Your task to perform on an android device: Check the news Image 0: 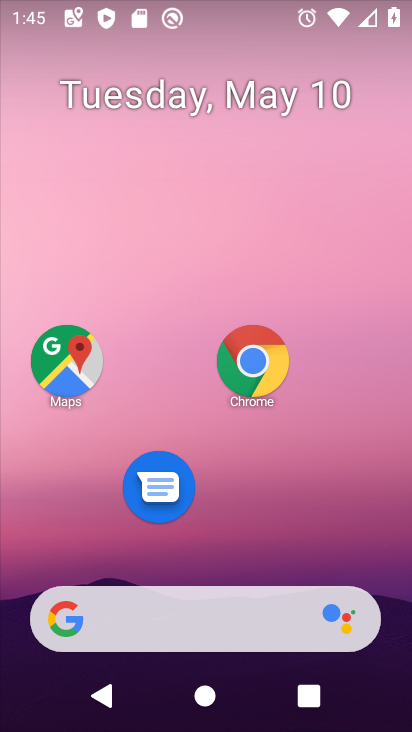
Step 0: click (251, 377)
Your task to perform on an android device: Check the news Image 1: 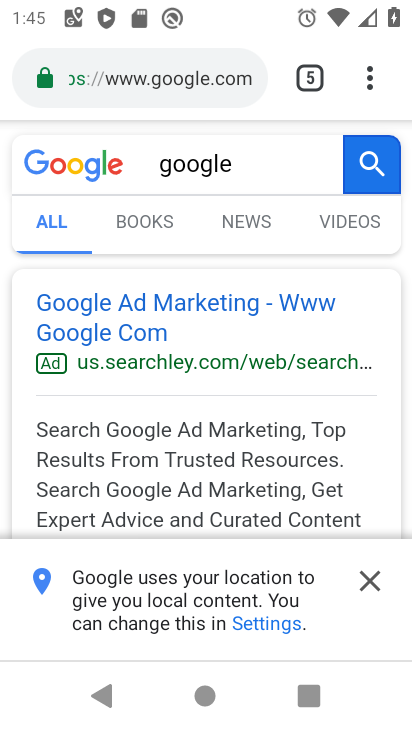
Step 1: click (313, 75)
Your task to perform on an android device: Check the news Image 2: 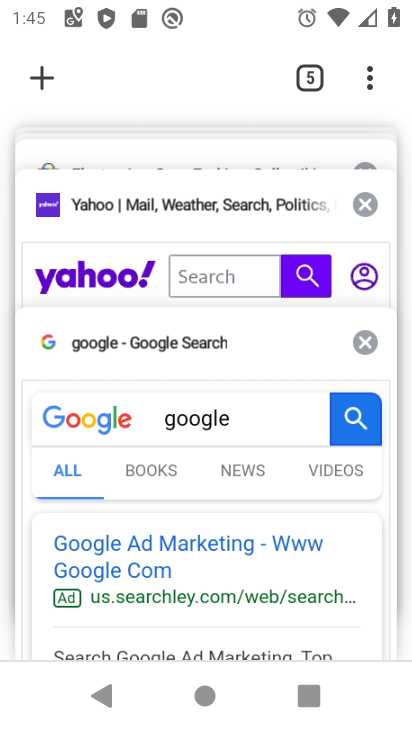
Step 2: click (59, 83)
Your task to perform on an android device: Check the news Image 3: 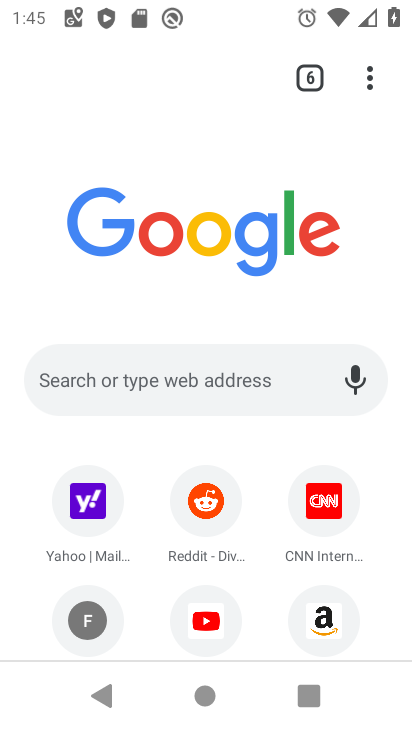
Step 3: drag from (21, 421) to (32, 142)
Your task to perform on an android device: Check the news Image 4: 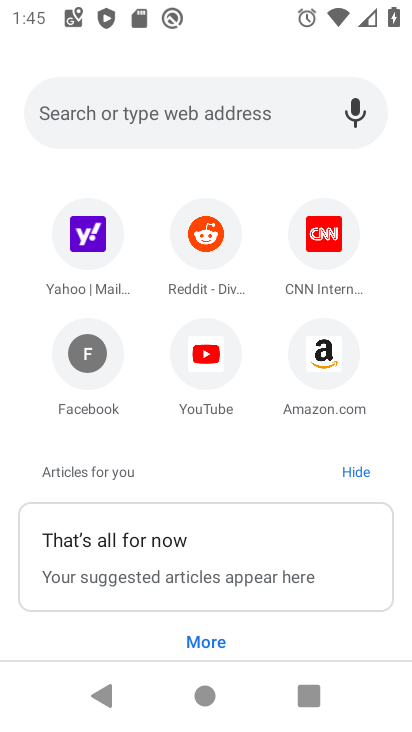
Step 4: click (32, 142)
Your task to perform on an android device: Check the news Image 5: 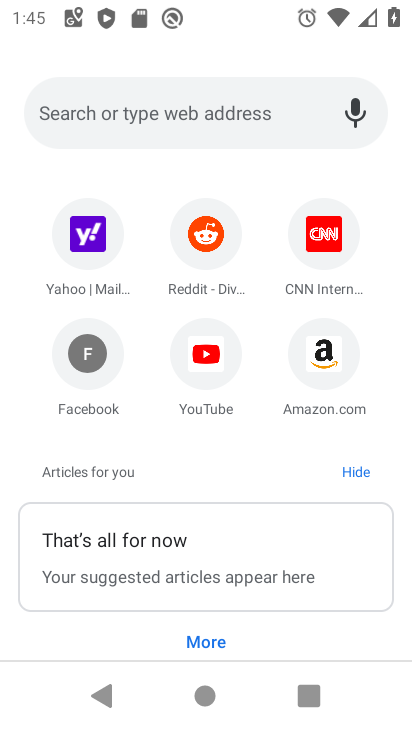
Step 5: drag from (0, 312) to (15, 124)
Your task to perform on an android device: Check the news Image 6: 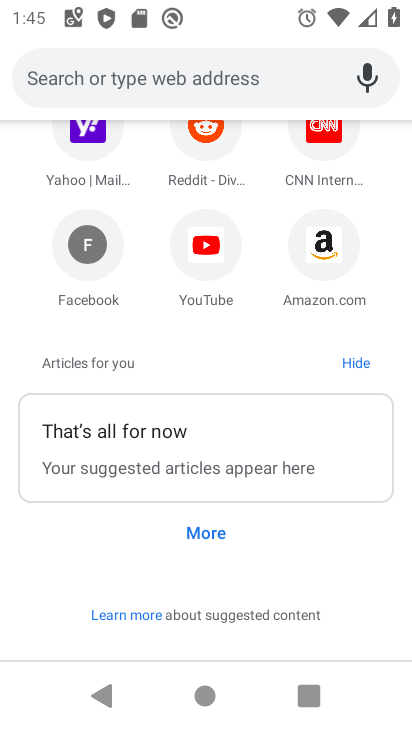
Step 6: click (23, 308)
Your task to perform on an android device: Check the news Image 7: 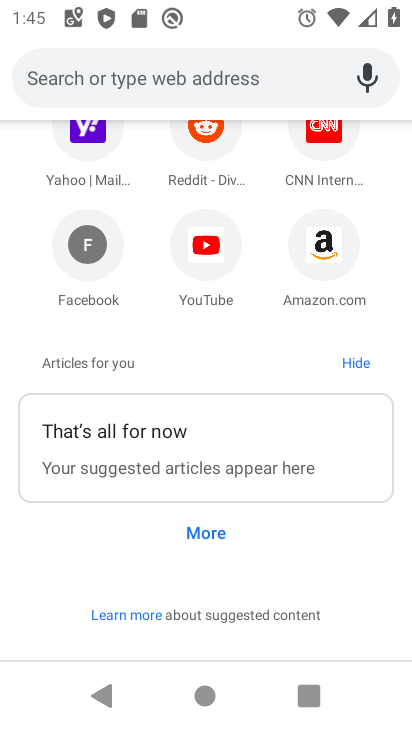
Step 7: click (196, 531)
Your task to perform on an android device: Check the news Image 8: 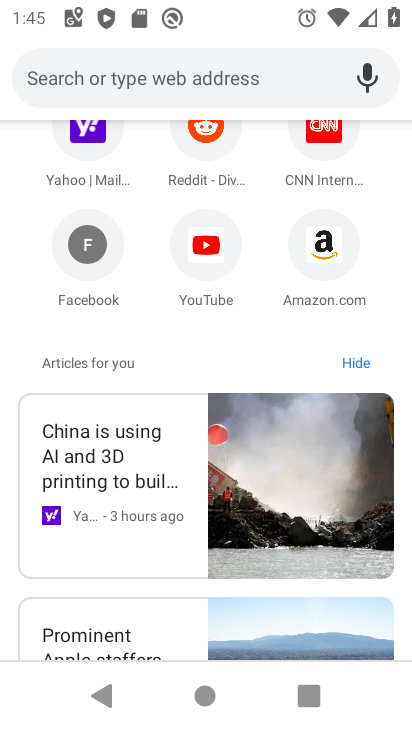
Step 8: drag from (196, 531) to (238, 307)
Your task to perform on an android device: Check the news Image 9: 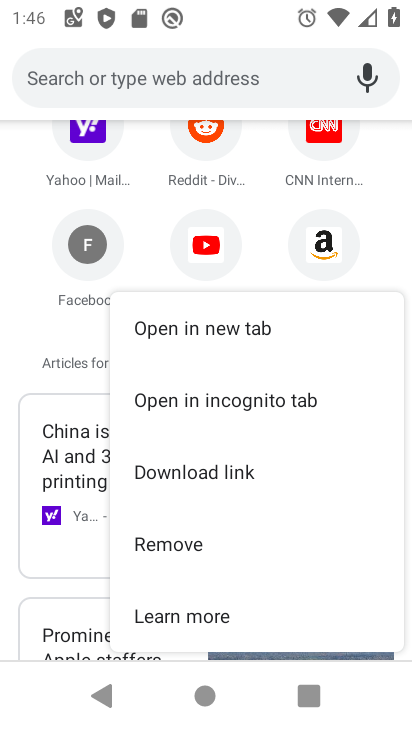
Step 9: click (23, 343)
Your task to perform on an android device: Check the news Image 10: 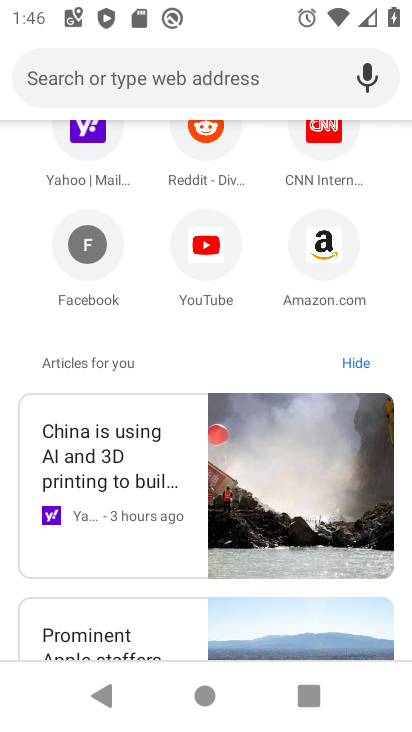
Step 10: task complete